Your task to perform on an android device: Open the Play Movies app and select the watchlist tab. Image 0: 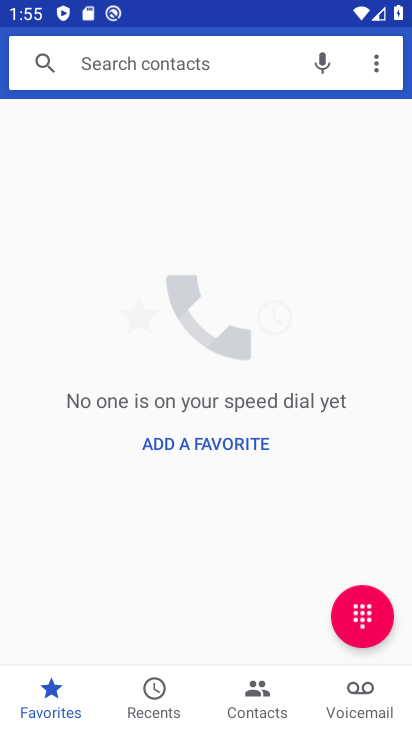
Step 0: press back button
Your task to perform on an android device: Open the Play Movies app and select the watchlist tab. Image 1: 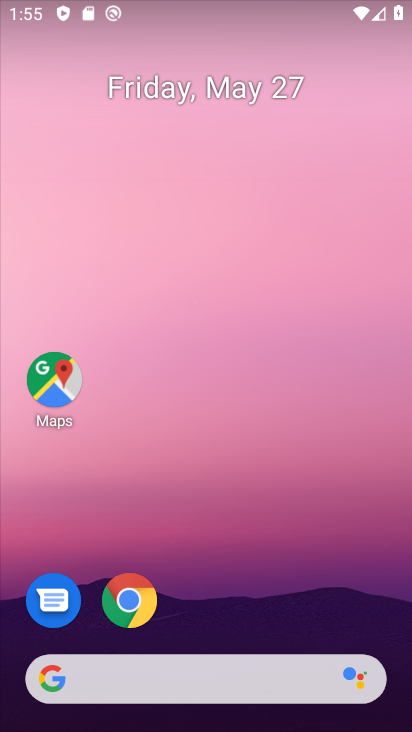
Step 1: drag from (224, 596) to (157, 43)
Your task to perform on an android device: Open the Play Movies app and select the watchlist tab. Image 2: 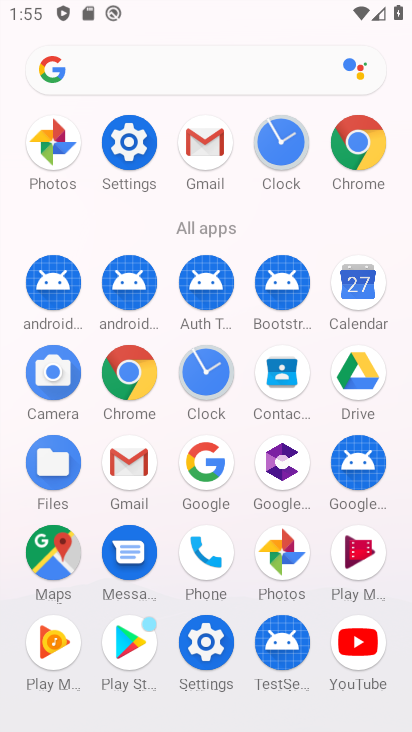
Step 2: click (357, 558)
Your task to perform on an android device: Open the Play Movies app and select the watchlist tab. Image 3: 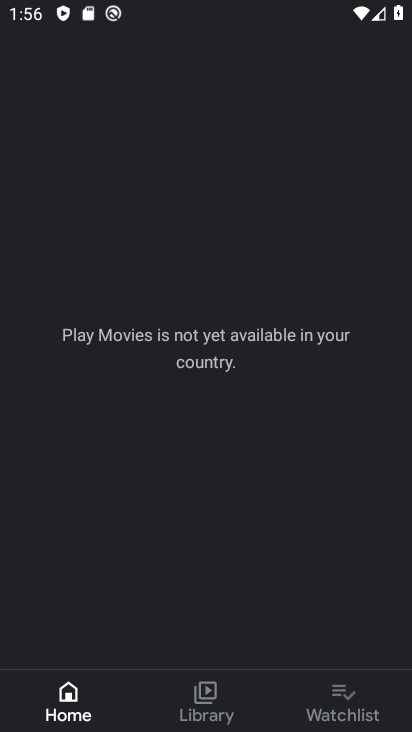
Step 3: click (318, 690)
Your task to perform on an android device: Open the Play Movies app and select the watchlist tab. Image 4: 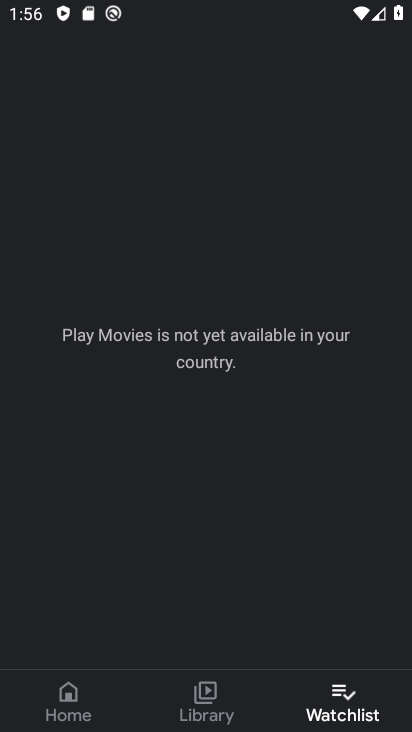
Step 4: task complete